Your task to perform on an android device: Search for seafood restaurants on Google Maps Image 0: 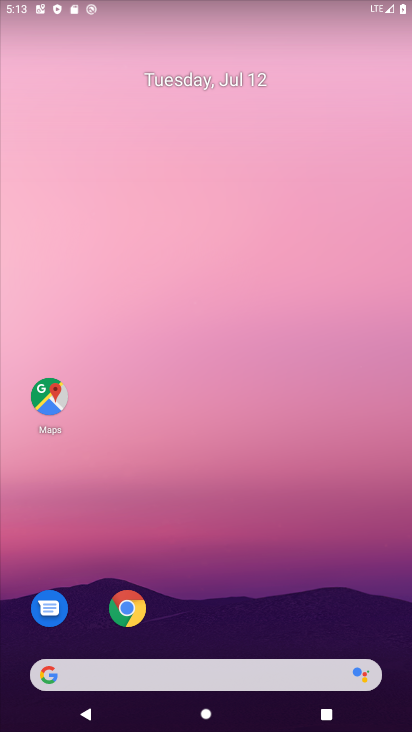
Step 0: click (48, 386)
Your task to perform on an android device: Search for seafood restaurants on Google Maps Image 1: 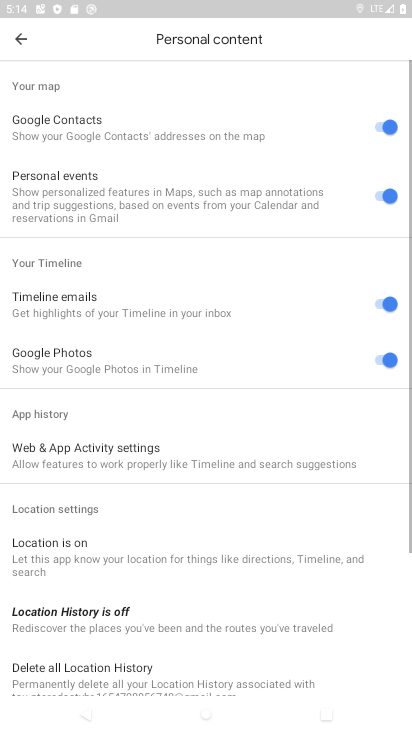
Step 1: click (33, 72)
Your task to perform on an android device: Search for seafood restaurants on Google Maps Image 2: 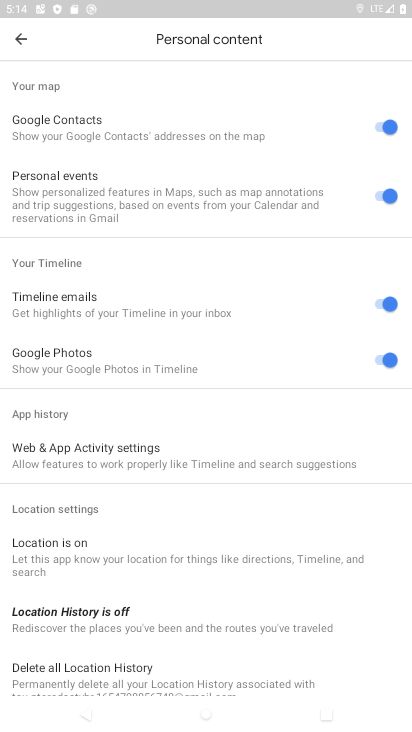
Step 2: click (16, 30)
Your task to perform on an android device: Search for seafood restaurants on Google Maps Image 3: 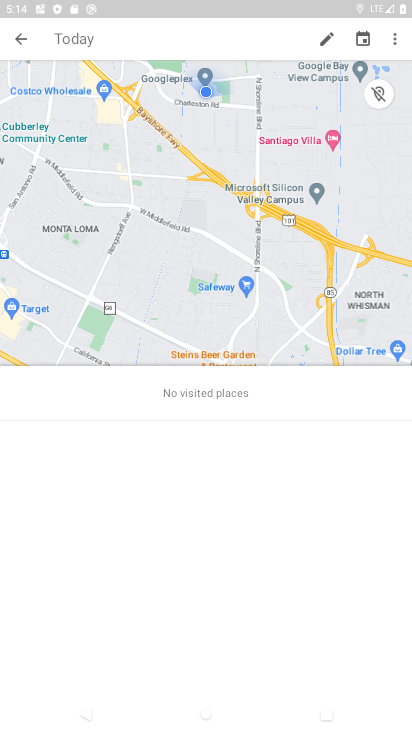
Step 3: click (29, 46)
Your task to perform on an android device: Search for seafood restaurants on Google Maps Image 4: 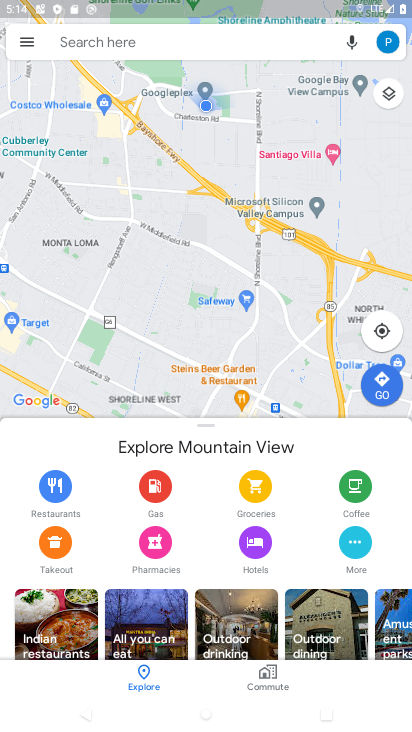
Step 4: click (136, 47)
Your task to perform on an android device: Search for seafood restaurants on Google Maps Image 5: 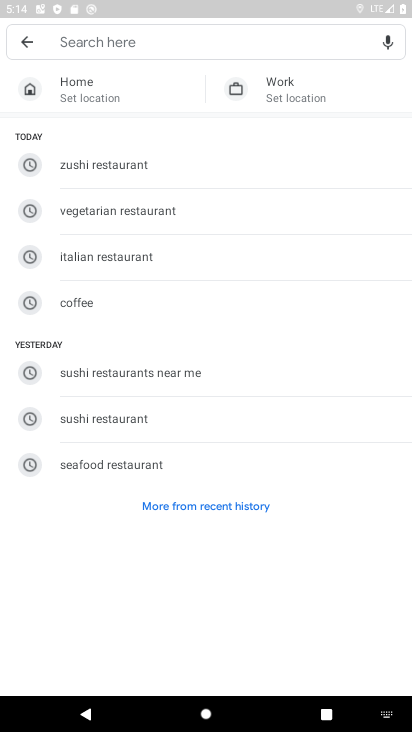
Step 5: click (125, 469)
Your task to perform on an android device: Search for seafood restaurants on Google Maps Image 6: 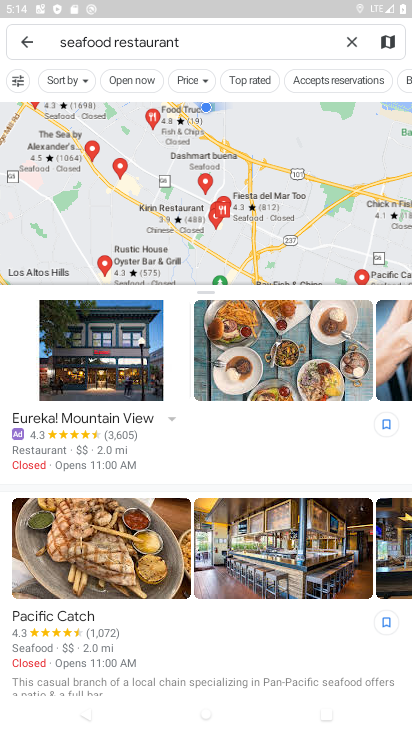
Step 6: task complete